Your task to perform on an android device: turn off airplane mode Image 0: 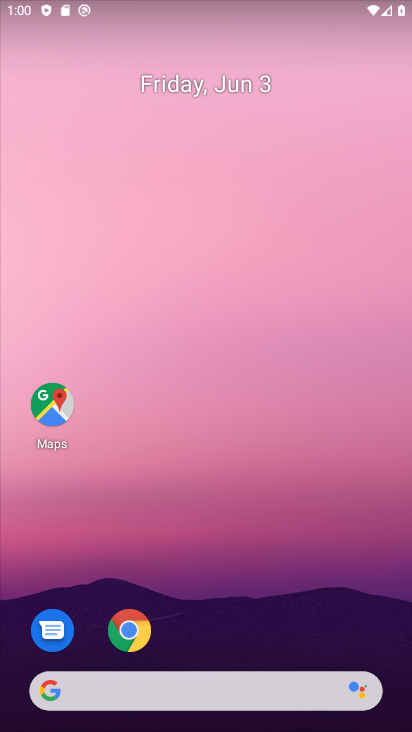
Step 0: drag from (187, 728) to (188, 124)
Your task to perform on an android device: turn off airplane mode Image 1: 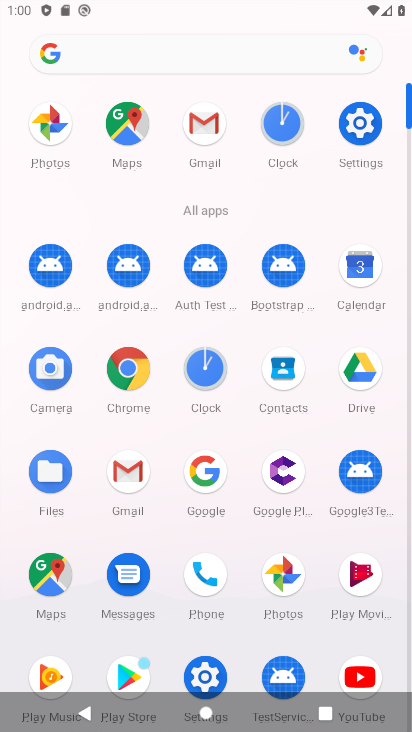
Step 1: click (360, 124)
Your task to perform on an android device: turn off airplane mode Image 2: 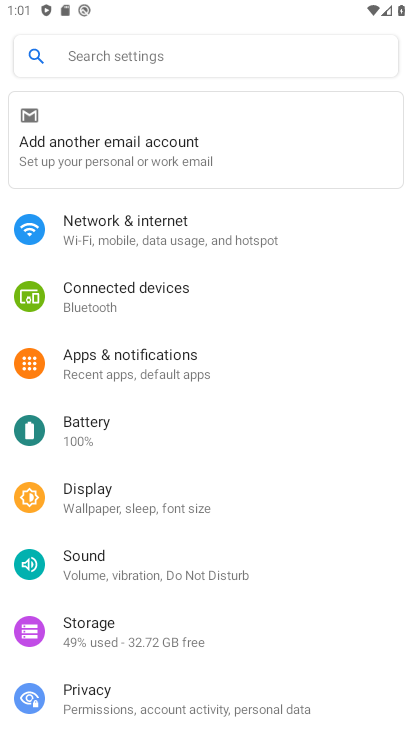
Step 2: click (100, 236)
Your task to perform on an android device: turn off airplane mode Image 3: 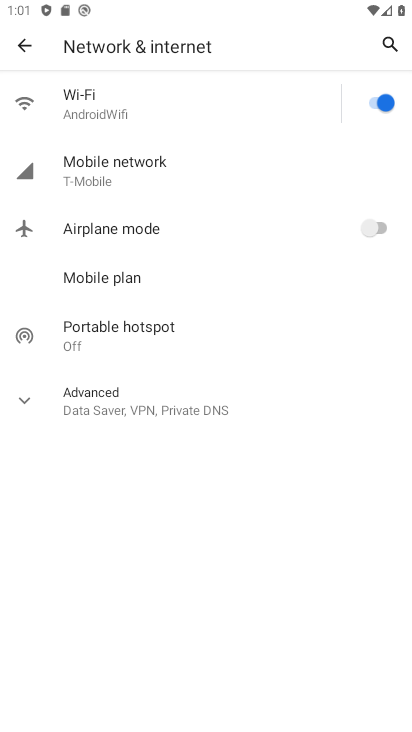
Step 3: task complete